Your task to perform on an android device: Open notification settings Image 0: 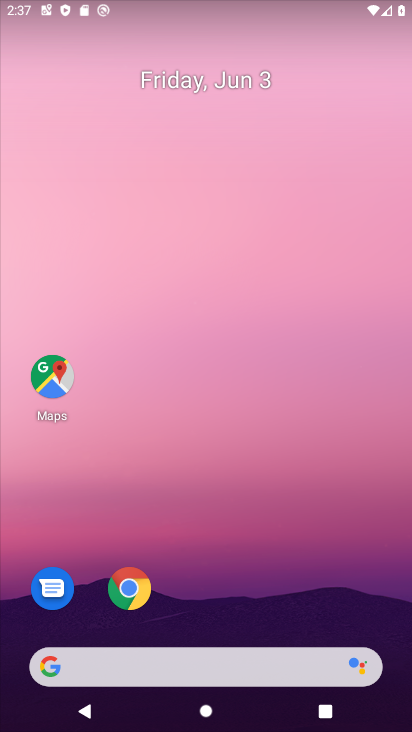
Step 0: drag from (245, 588) to (188, 242)
Your task to perform on an android device: Open notification settings Image 1: 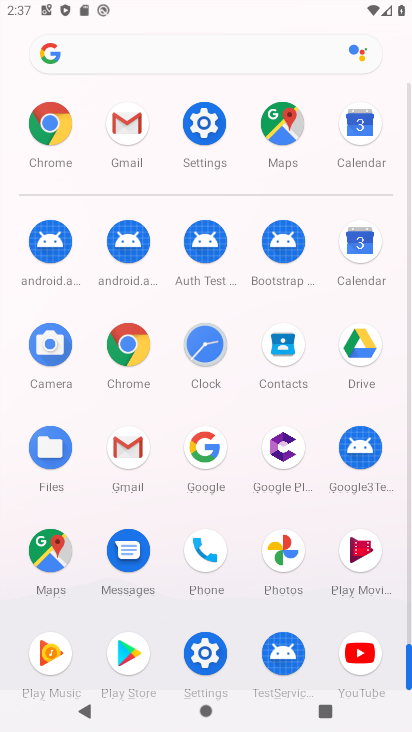
Step 1: click (220, 647)
Your task to perform on an android device: Open notification settings Image 2: 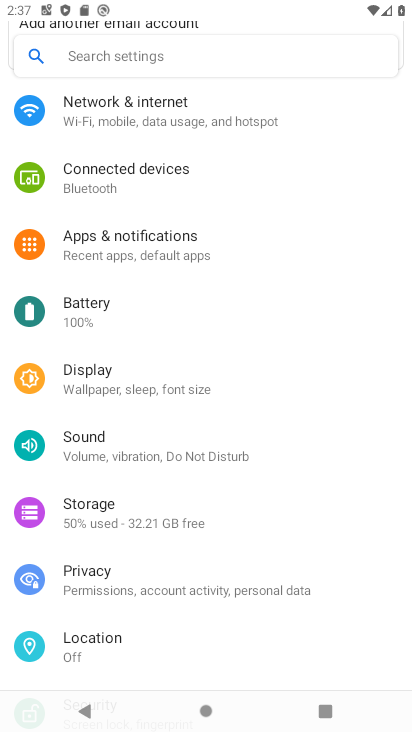
Step 2: click (206, 247)
Your task to perform on an android device: Open notification settings Image 3: 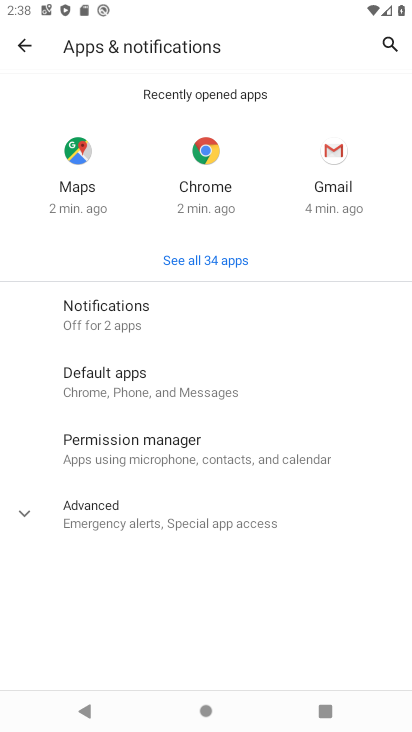
Step 3: task complete